Your task to perform on an android device: turn on javascript in the chrome app Image 0: 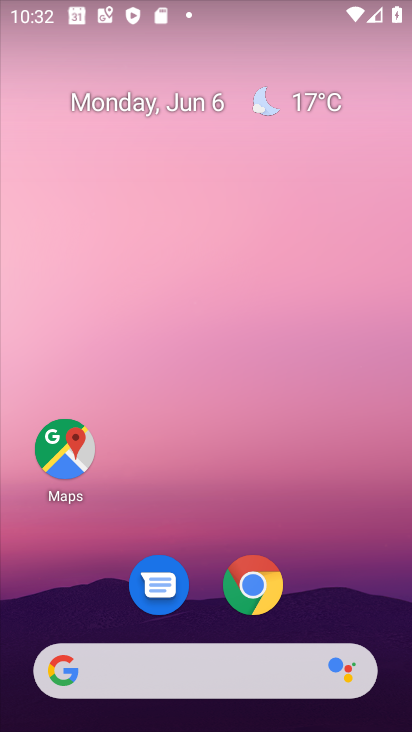
Step 0: drag from (274, 502) to (241, 100)
Your task to perform on an android device: turn on javascript in the chrome app Image 1: 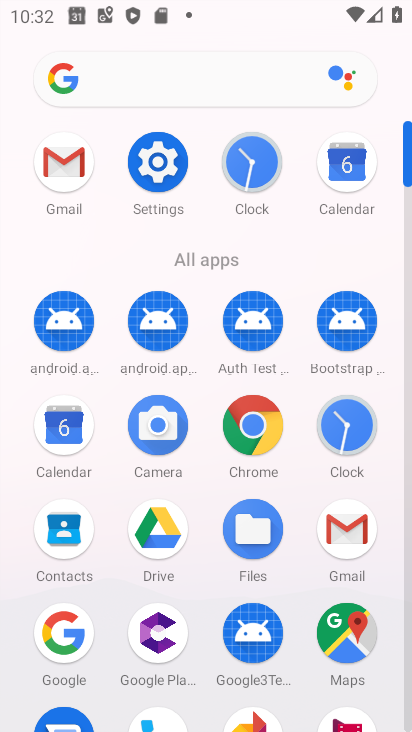
Step 1: click (257, 418)
Your task to perform on an android device: turn on javascript in the chrome app Image 2: 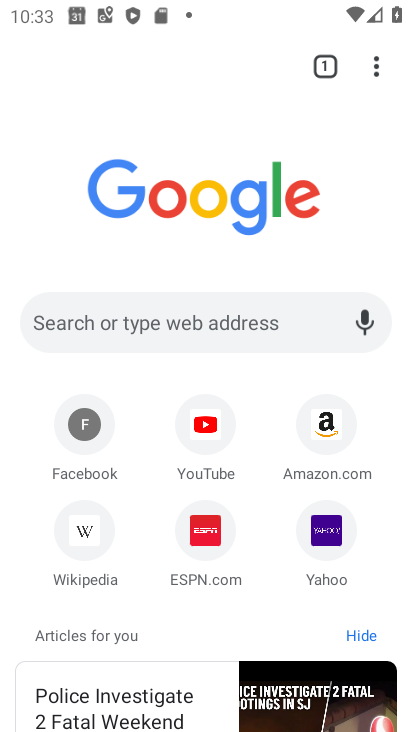
Step 2: click (376, 69)
Your task to perform on an android device: turn on javascript in the chrome app Image 3: 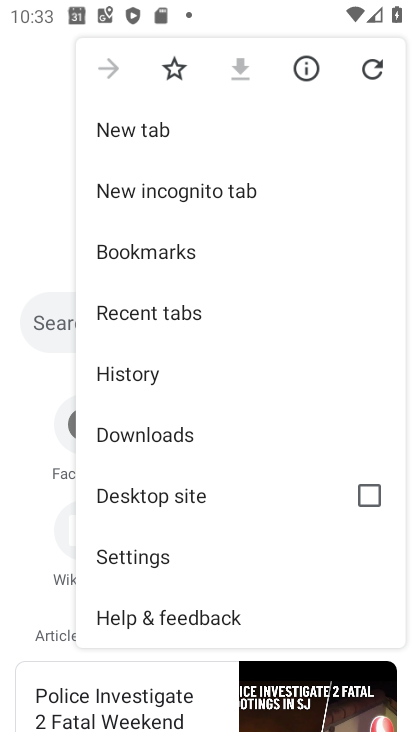
Step 3: click (196, 560)
Your task to perform on an android device: turn on javascript in the chrome app Image 4: 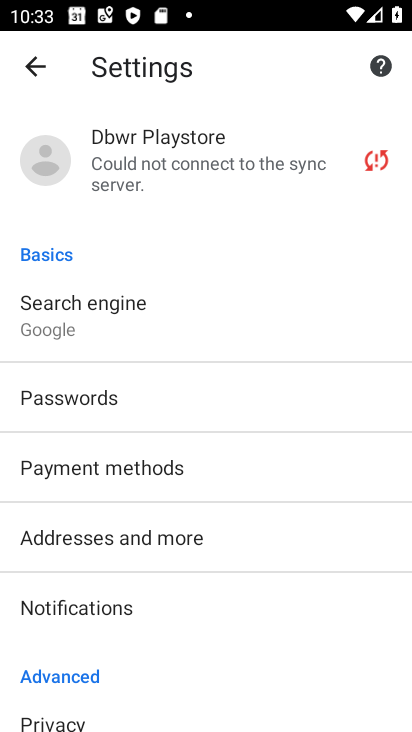
Step 4: drag from (265, 575) to (276, 262)
Your task to perform on an android device: turn on javascript in the chrome app Image 5: 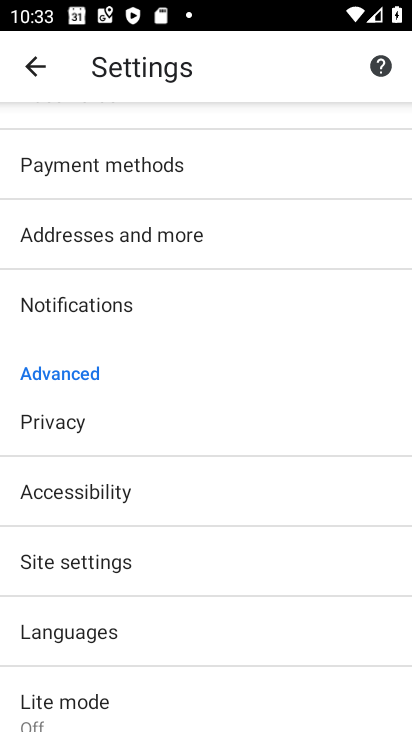
Step 5: click (235, 554)
Your task to perform on an android device: turn on javascript in the chrome app Image 6: 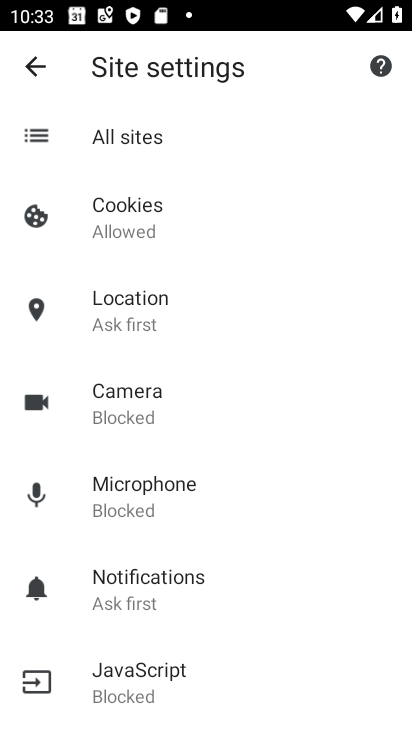
Step 6: click (202, 681)
Your task to perform on an android device: turn on javascript in the chrome app Image 7: 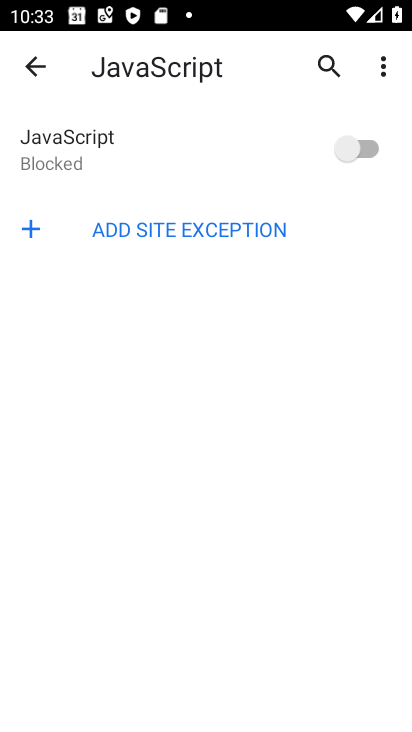
Step 7: click (349, 143)
Your task to perform on an android device: turn on javascript in the chrome app Image 8: 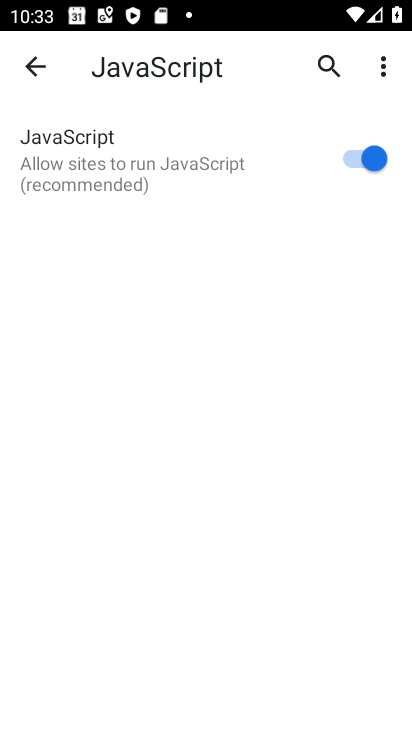
Step 8: task complete